Your task to perform on an android device: Go to calendar. Show me events next week Image 0: 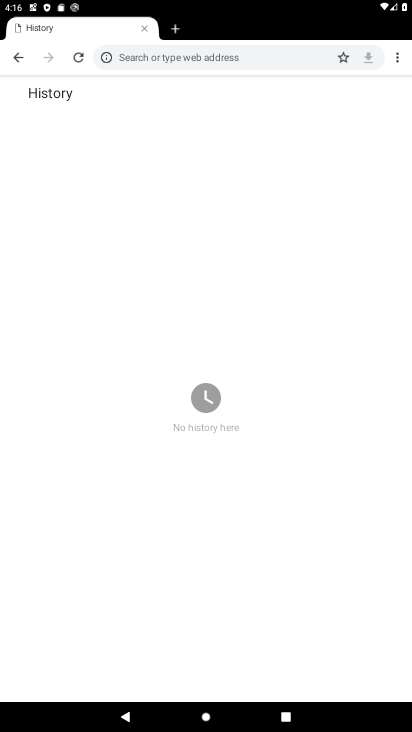
Step 0: press home button
Your task to perform on an android device: Go to calendar. Show me events next week Image 1: 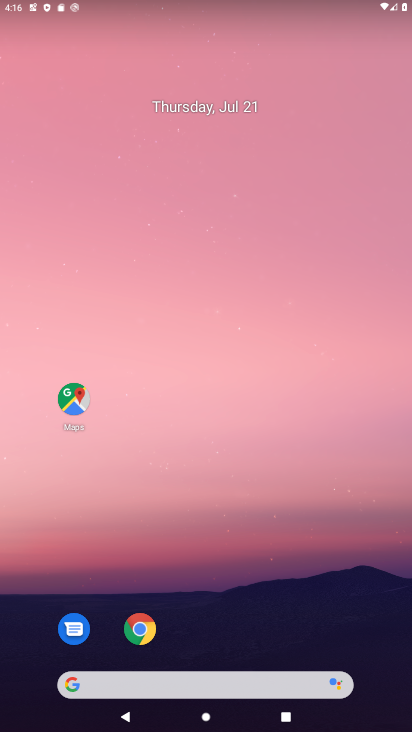
Step 1: drag from (317, 464) to (268, 54)
Your task to perform on an android device: Go to calendar. Show me events next week Image 2: 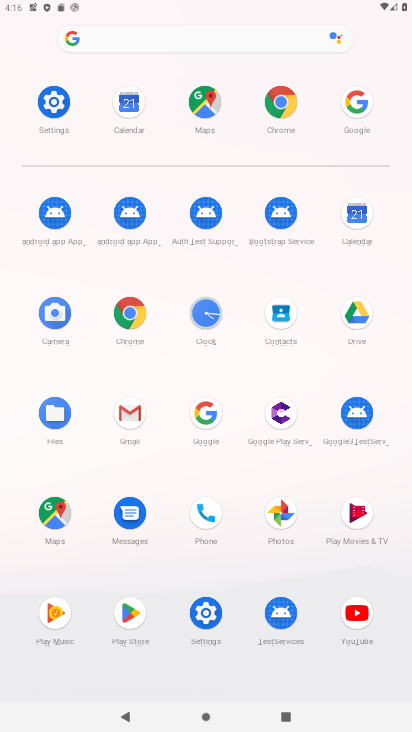
Step 2: click (362, 232)
Your task to perform on an android device: Go to calendar. Show me events next week Image 3: 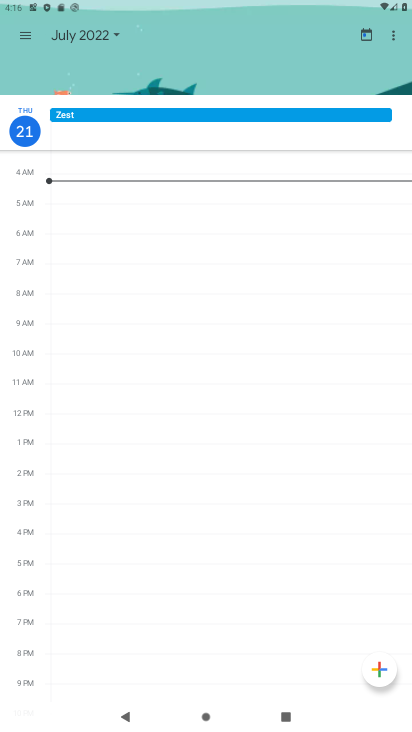
Step 3: click (60, 28)
Your task to perform on an android device: Go to calendar. Show me events next week Image 4: 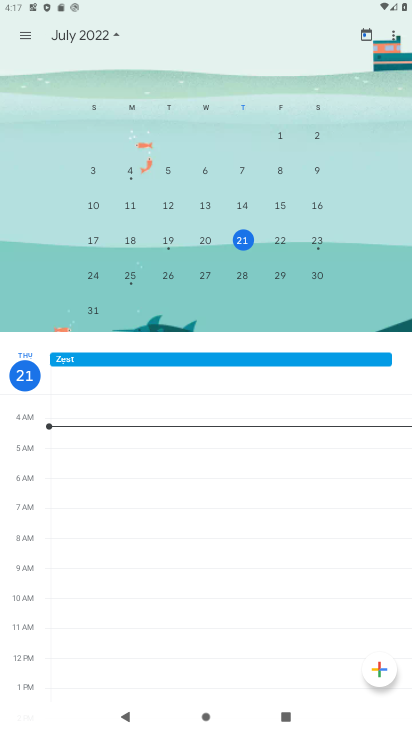
Step 4: click (242, 280)
Your task to perform on an android device: Go to calendar. Show me events next week Image 5: 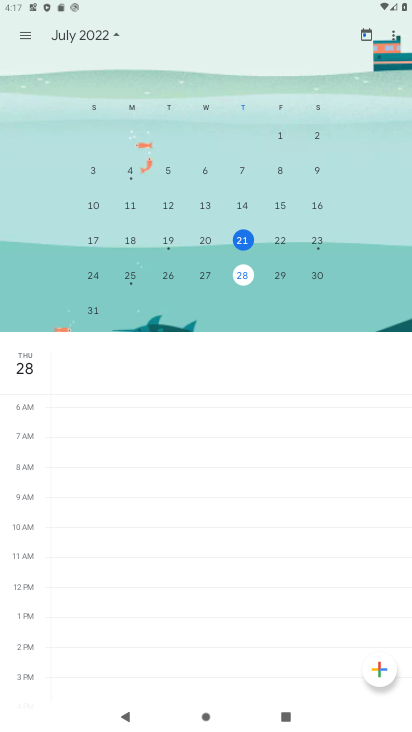
Step 5: task complete